Your task to perform on an android device: open device folders in google photos Image 0: 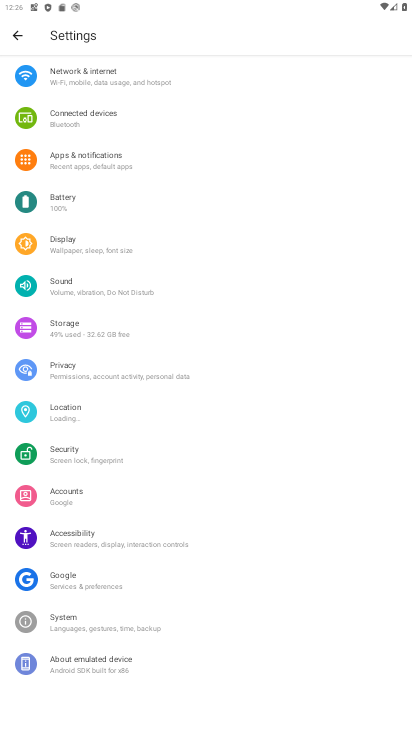
Step 0: press back button
Your task to perform on an android device: open device folders in google photos Image 1: 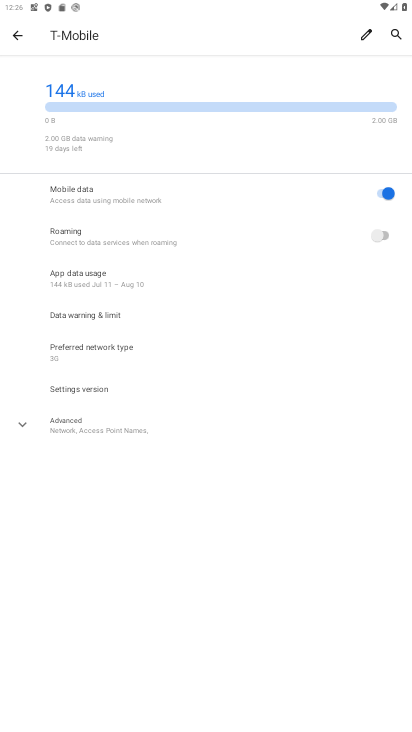
Step 1: press back button
Your task to perform on an android device: open device folders in google photos Image 2: 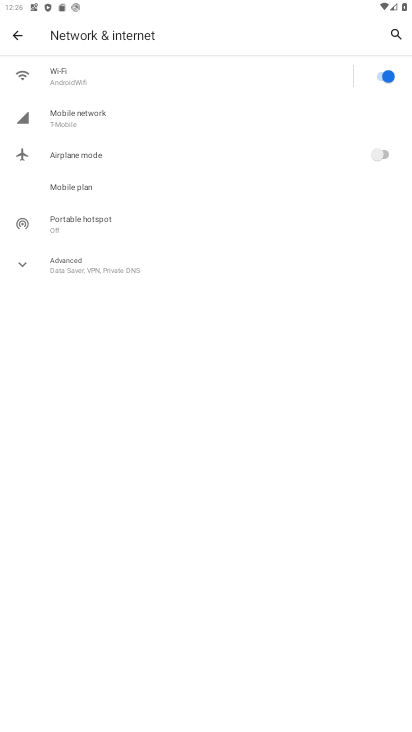
Step 2: press back button
Your task to perform on an android device: open device folders in google photos Image 3: 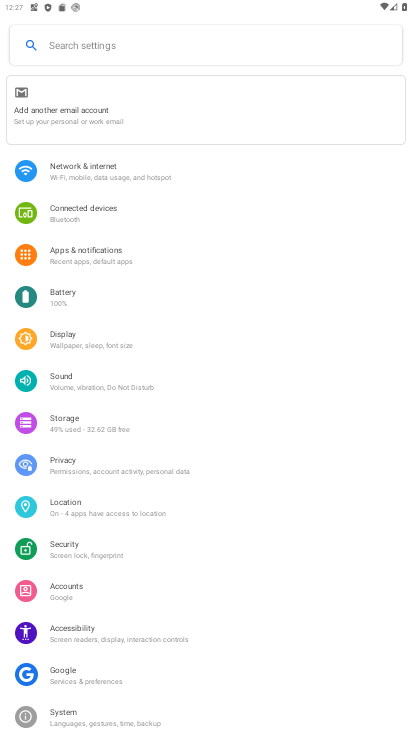
Step 3: press back button
Your task to perform on an android device: open device folders in google photos Image 4: 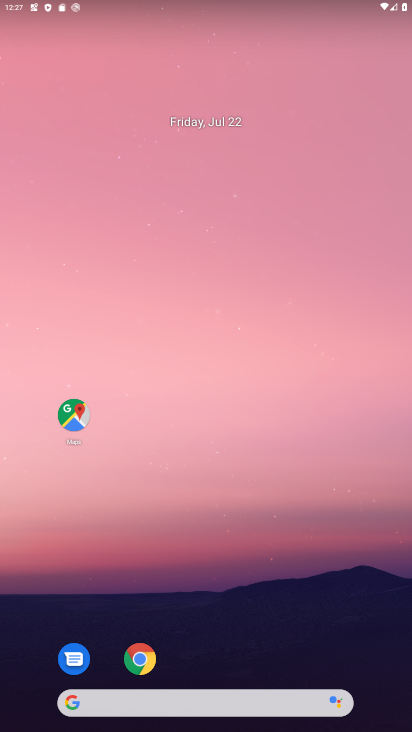
Step 4: drag from (170, 618) to (152, 244)
Your task to perform on an android device: open device folders in google photos Image 5: 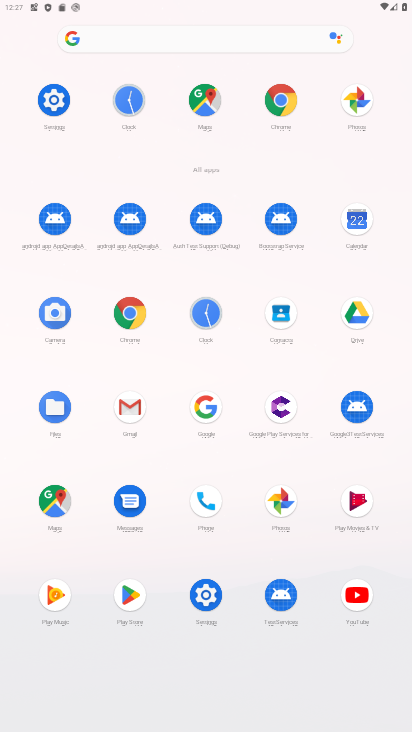
Step 5: click (272, 488)
Your task to perform on an android device: open device folders in google photos Image 6: 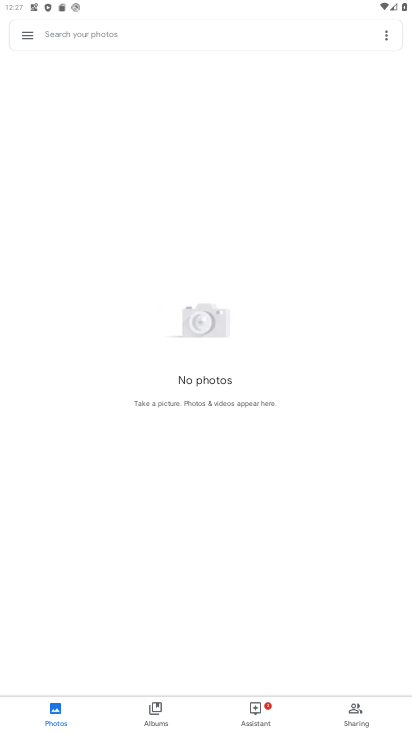
Step 6: click (30, 35)
Your task to perform on an android device: open device folders in google photos Image 7: 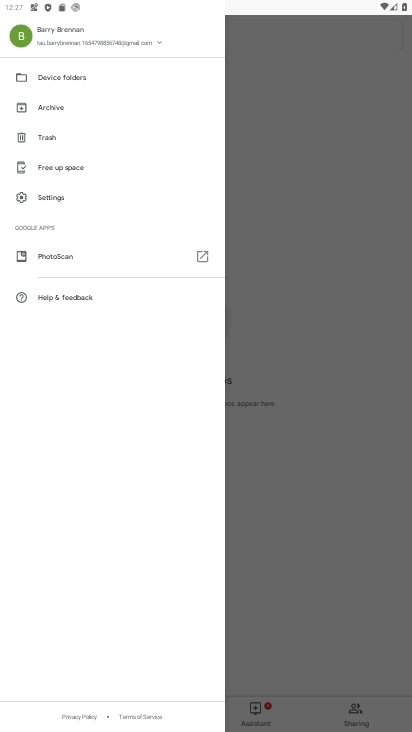
Step 7: click (70, 86)
Your task to perform on an android device: open device folders in google photos Image 8: 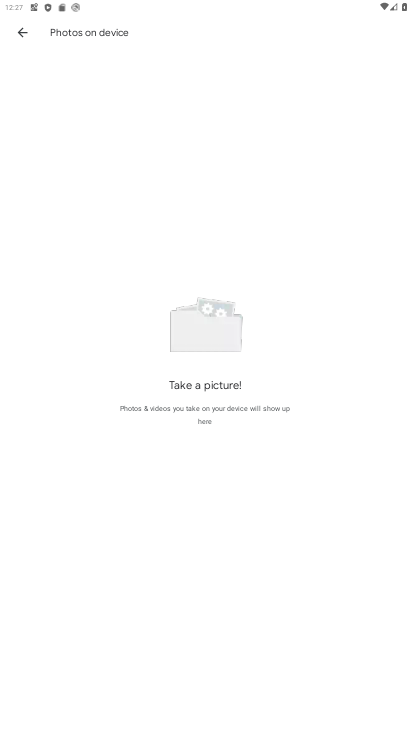
Step 8: task complete